Your task to perform on an android device: Is it going to rain this weekend? Image 0: 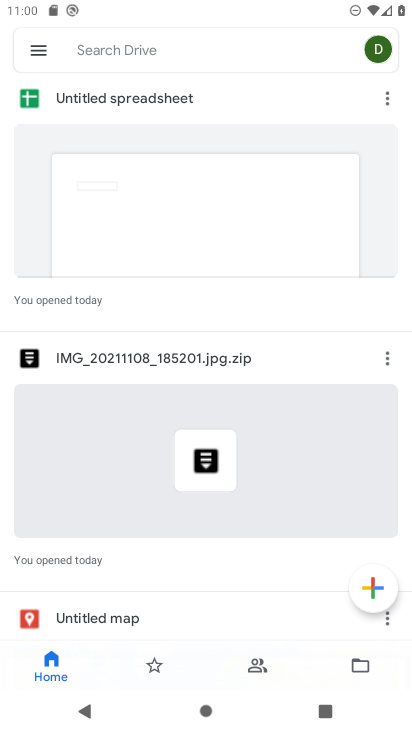
Step 0: press home button
Your task to perform on an android device: Is it going to rain this weekend? Image 1: 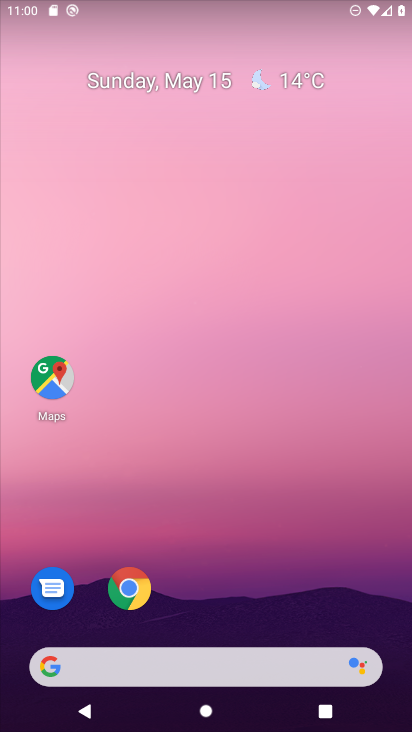
Step 1: click (295, 88)
Your task to perform on an android device: Is it going to rain this weekend? Image 2: 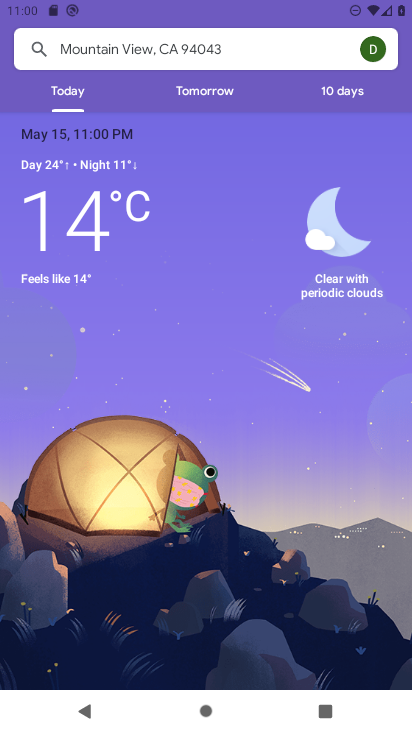
Step 2: click (334, 84)
Your task to perform on an android device: Is it going to rain this weekend? Image 3: 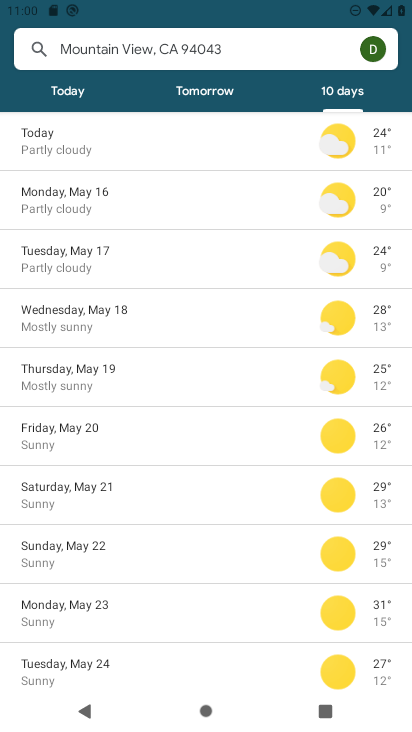
Step 3: task complete